Your task to perform on an android device: star an email in the gmail app Image 0: 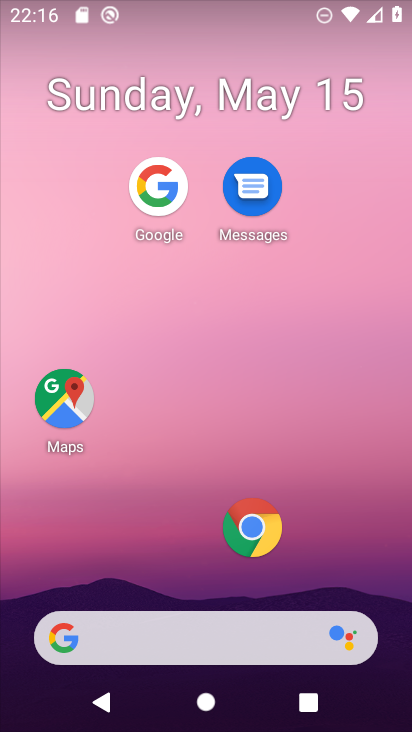
Step 0: press home button
Your task to perform on an android device: star an email in the gmail app Image 1: 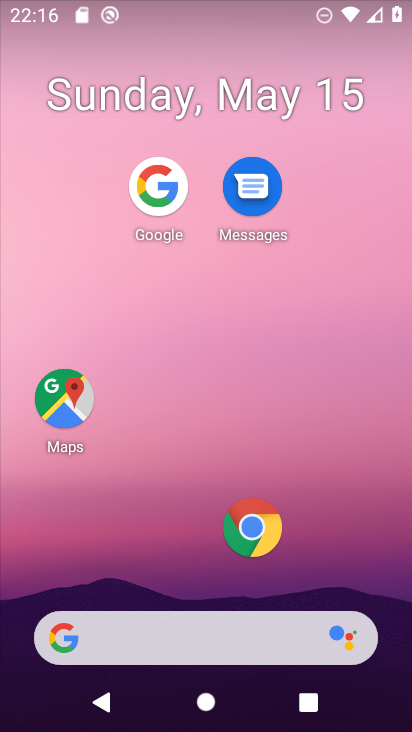
Step 1: drag from (148, 645) to (302, 159)
Your task to perform on an android device: star an email in the gmail app Image 2: 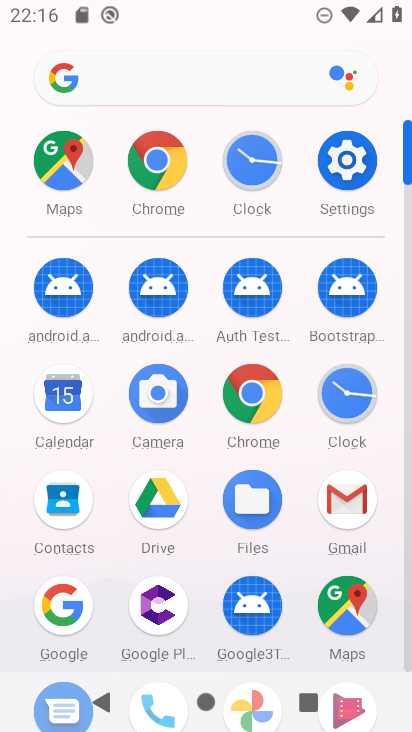
Step 2: click (338, 509)
Your task to perform on an android device: star an email in the gmail app Image 3: 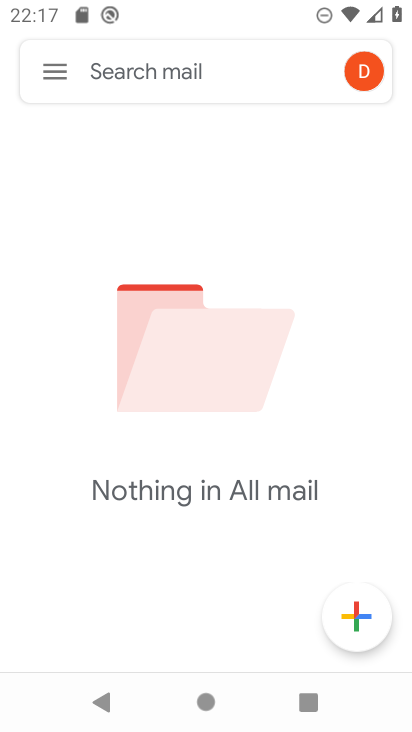
Step 3: task complete